Your task to perform on an android device: remove spam from my inbox in the gmail app Image 0: 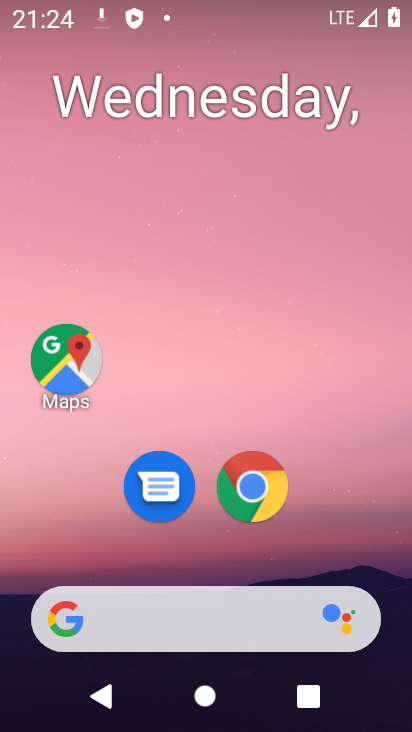
Step 0: drag from (194, 564) to (225, 47)
Your task to perform on an android device: remove spam from my inbox in the gmail app Image 1: 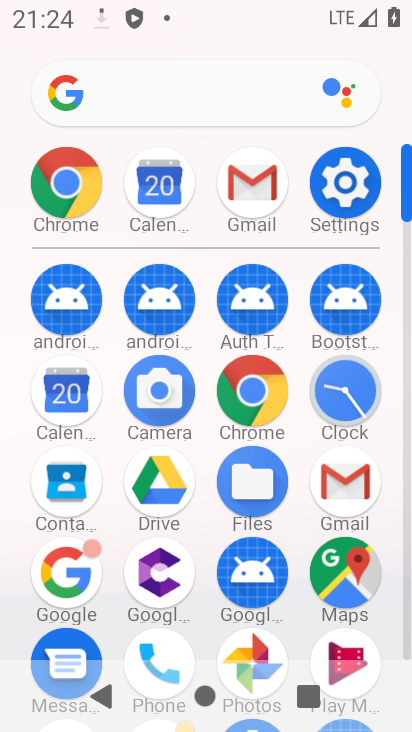
Step 1: click (256, 174)
Your task to perform on an android device: remove spam from my inbox in the gmail app Image 2: 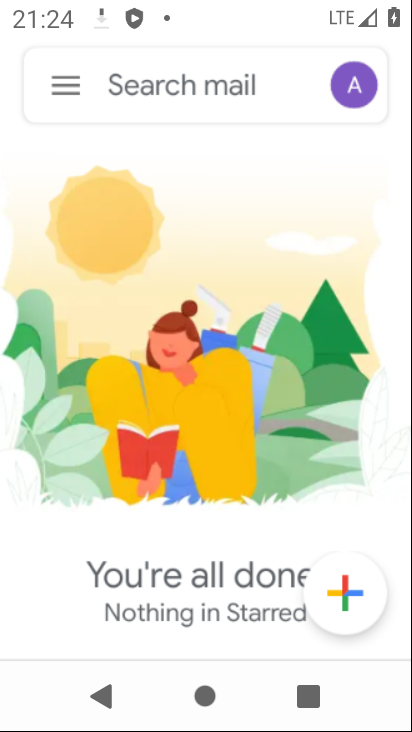
Step 2: click (65, 52)
Your task to perform on an android device: remove spam from my inbox in the gmail app Image 3: 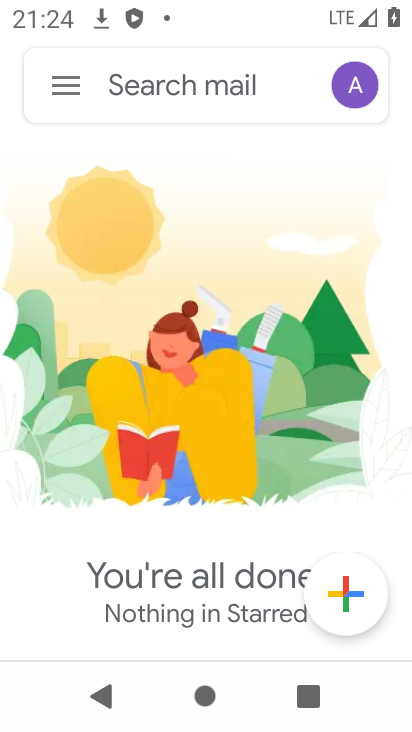
Step 3: click (66, 79)
Your task to perform on an android device: remove spam from my inbox in the gmail app Image 4: 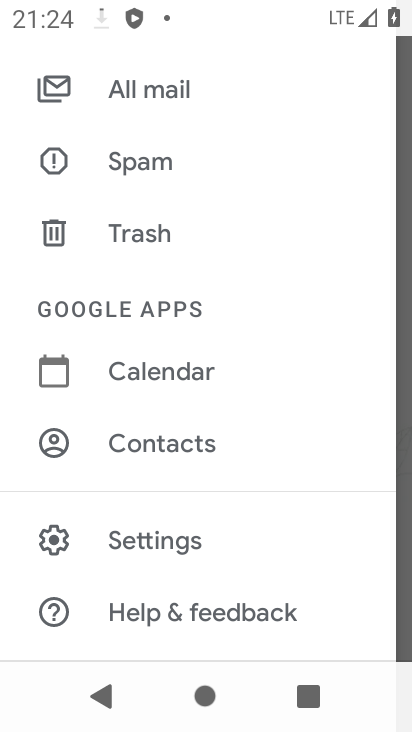
Step 4: click (132, 164)
Your task to perform on an android device: remove spam from my inbox in the gmail app Image 5: 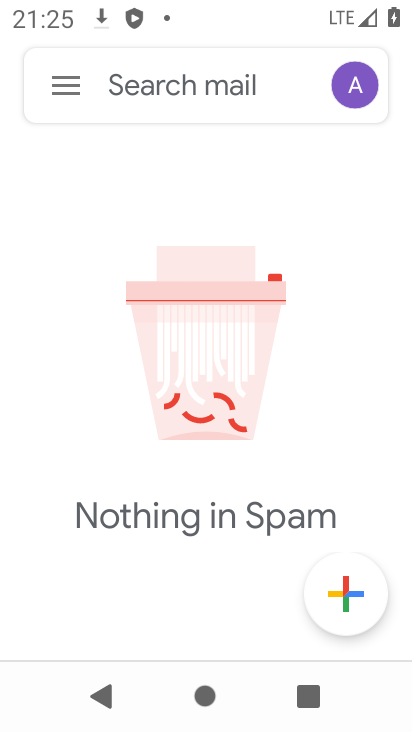
Step 5: task complete